Your task to perform on an android device: turn on translation in the chrome app Image 0: 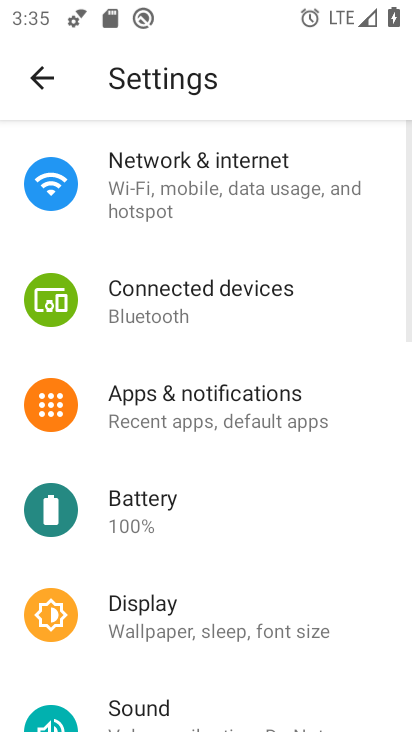
Step 0: press home button
Your task to perform on an android device: turn on translation in the chrome app Image 1: 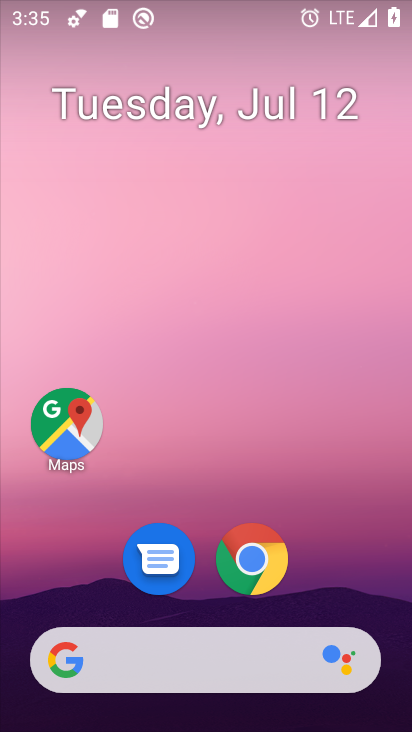
Step 1: drag from (364, 575) to (360, 152)
Your task to perform on an android device: turn on translation in the chrome app Image 2: 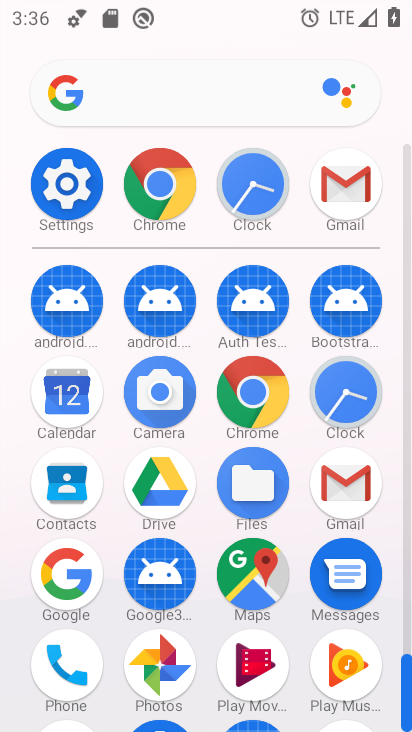
Step 2: click (266, 391)
Your task to perform on an android device: turn on translation in the chrome app Image 3: 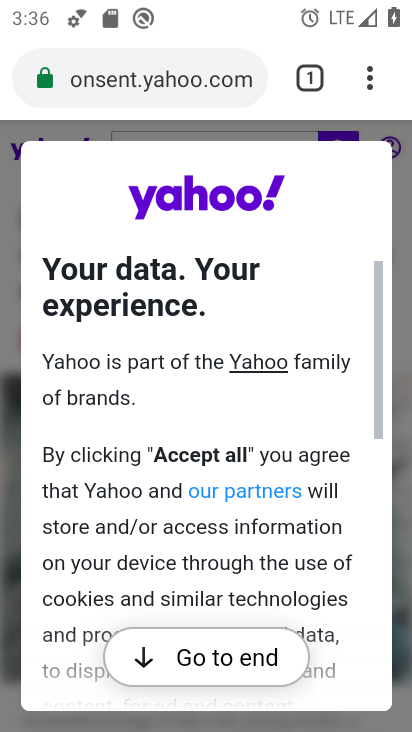
Step 3: click (368, 85)
Your task to perform on an android device: turn on translation in the chrome app Image 4: 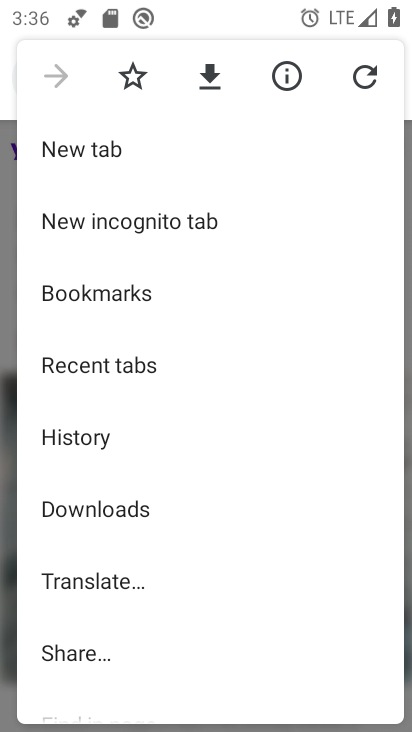
Step 4: drag from (301, 371) to (309, 301)
Your task to perform on an android device: turn on translation in the chrome app Image 5: 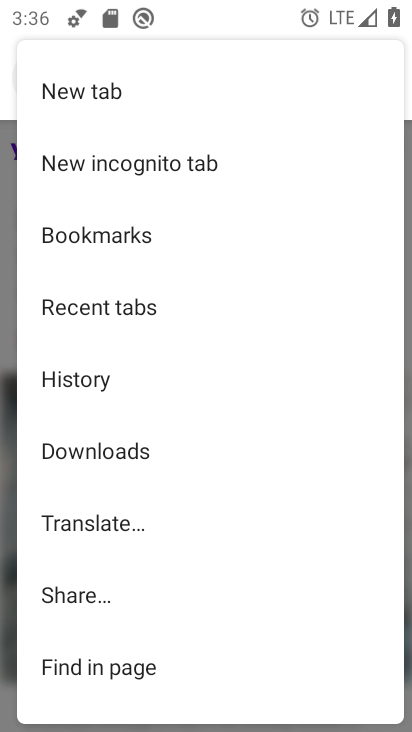
Step 5: drag from (320, 389) to (324, 320)
Your task to perform on an android device: turn on translation in the chrome app Image 6: 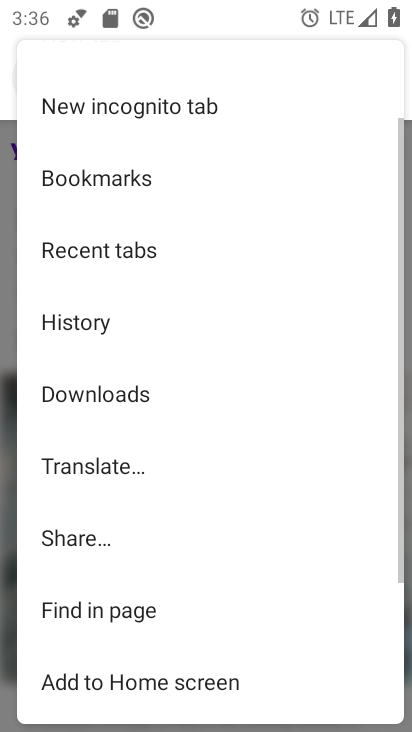
Step 6: drag from (327, 418) to (332, 321)
Your task to perform on an android device: turn on translation in the chrome app Image 7: 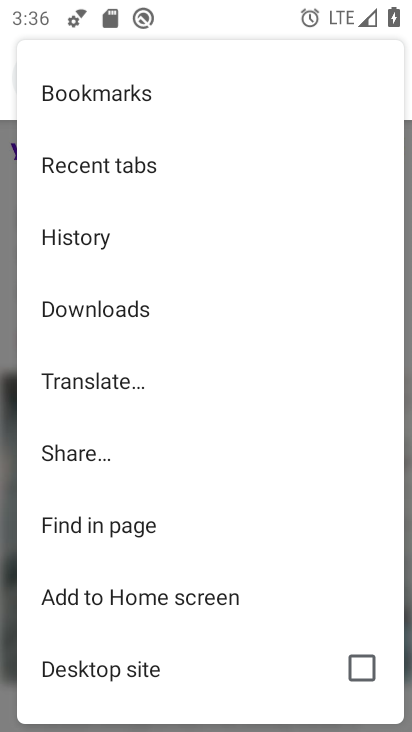
Step 7: drag from (324, 448) to (330, 372)
Your task to perform on an android device: turn on translation in the chrome app Image 8: 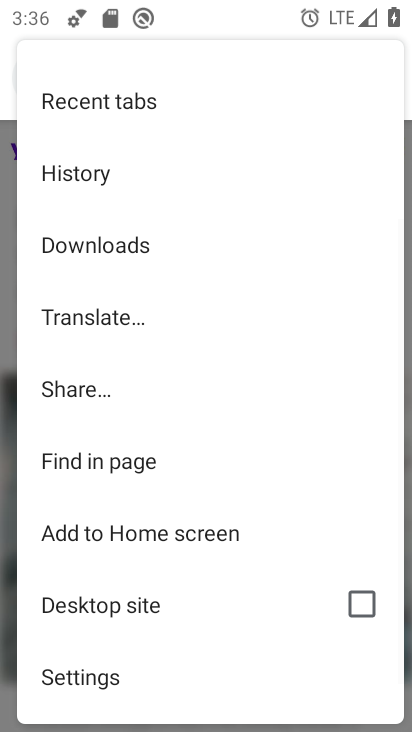
Step 8: drag from (309, 470) to (312, 387)
Your task to perform on an android device: turn on translation in the chrome app Image 9: 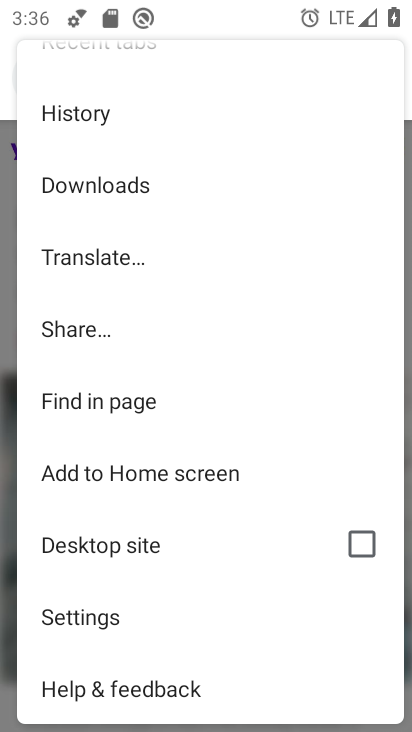
Step 9: click (224, 628)
Your task to perform on an android device: turn on translation in the chrome app Image 10: 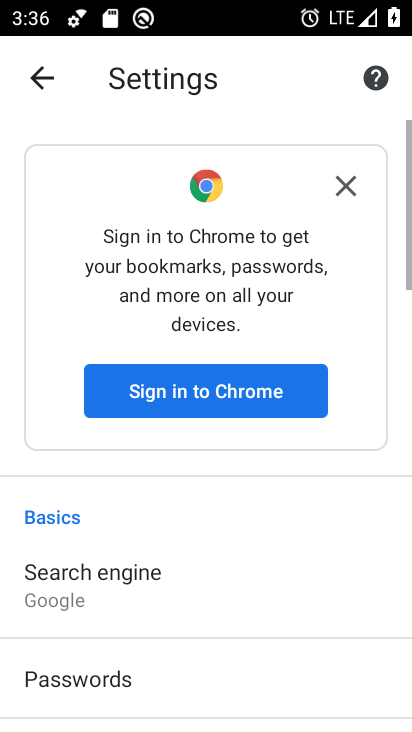
Step 10: drag from (320, 597) to (333, 513)
Your task to perform on an android device: turn on translation in the chrome app Image 11: 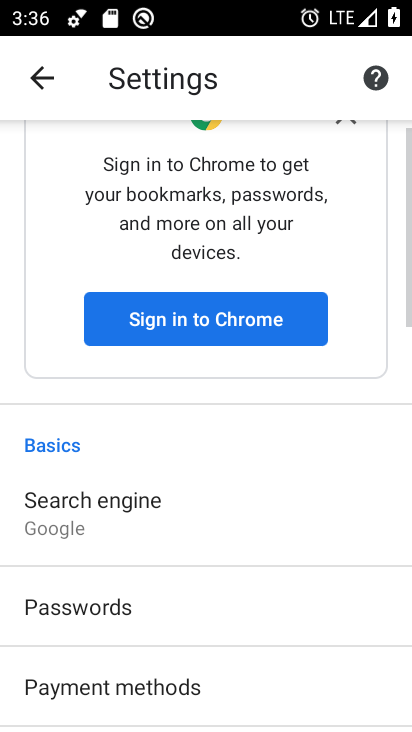
Step 11: drag from (329, 561) to (328, 479)
Your task to perform on an android device: turn on translation in the chrome app Image 12: 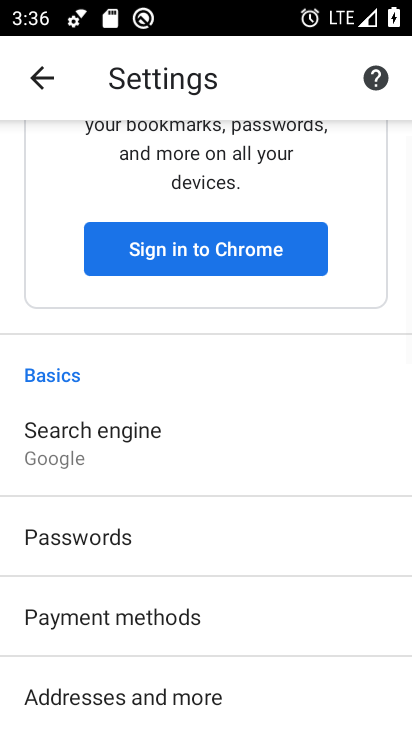
Step 12: drag from (325, 546) to (326, 483)
Your task to perform on an android device: turn on translation in the chrome app Image 13: 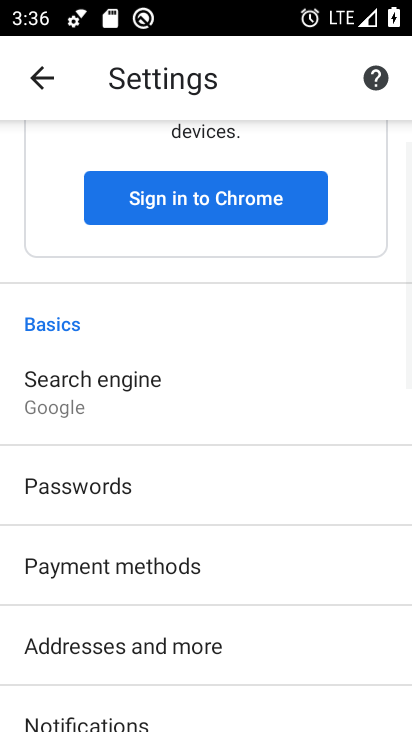
Step 13: drag from (326, 550) to (329, 467)
Your task to perform on an android device: turn on translation in the chrome app Image 14: 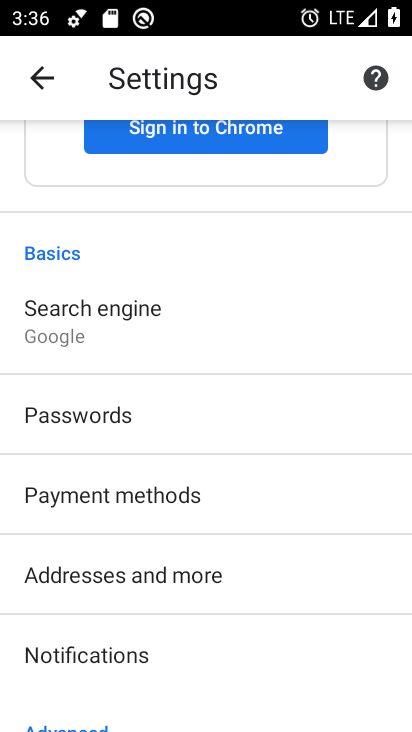
Step 14: drag from (324, 543) to (325, 469)
Your task to perform on an android device: turn on translation in the chrome app Image 15: 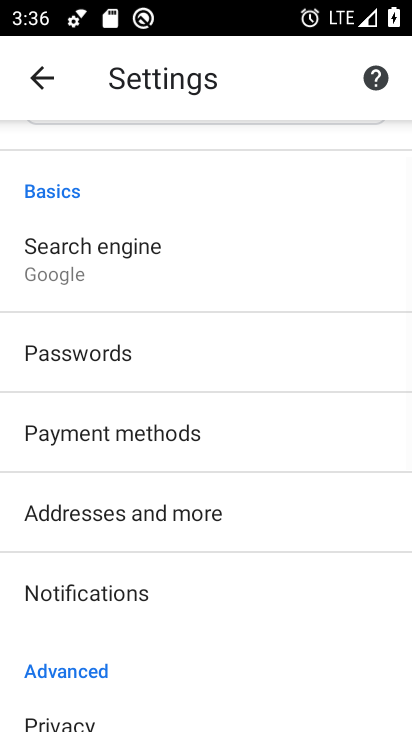
Step 15: drag from (327, 534) to (327, 457)
Your task to perform on an android device: turn on translation in the chrome app Image 16: 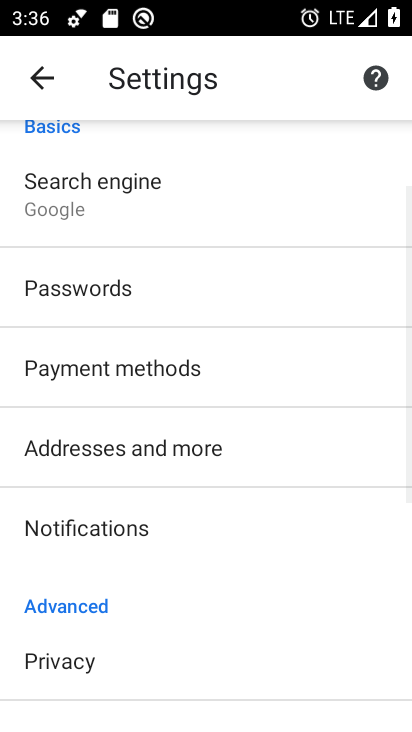
Step 16: drag from (329, 538) to (339, 452)
Your task to perform on an android device: turn on translation in the chrome app Image 17: 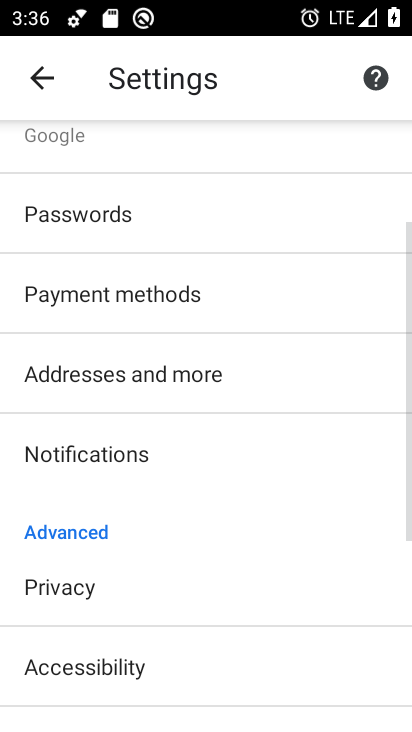
Step 17: drag from (339, 515) to (341, 436)
Your task to perform on an android device: turn on translation in the chrome app Image 18: 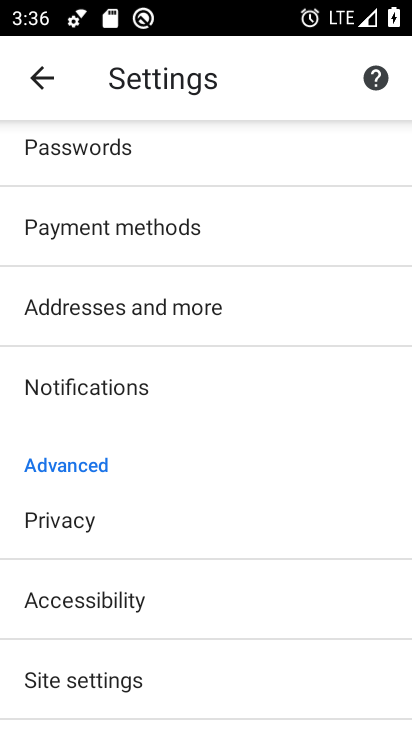
Step 18: drag from (328, 549) to (327, 456)
Your task to perform on an android device: turn on translation in the chrome app Image 19: 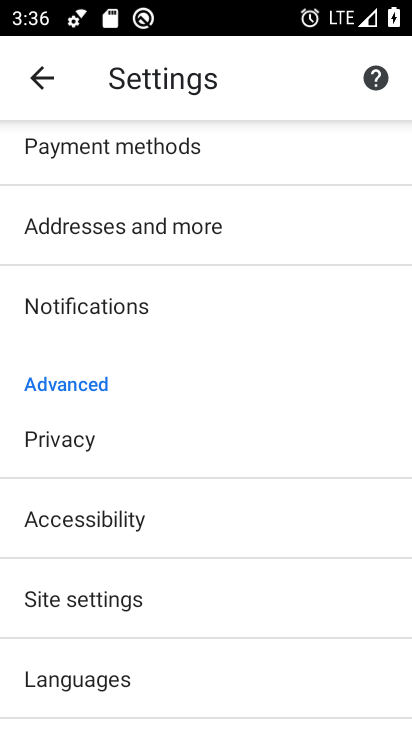
Step 19: drag from (326, 575) to (337, 439)
Your task to perform on an android device: turn on translation in the chrome app Image 20: 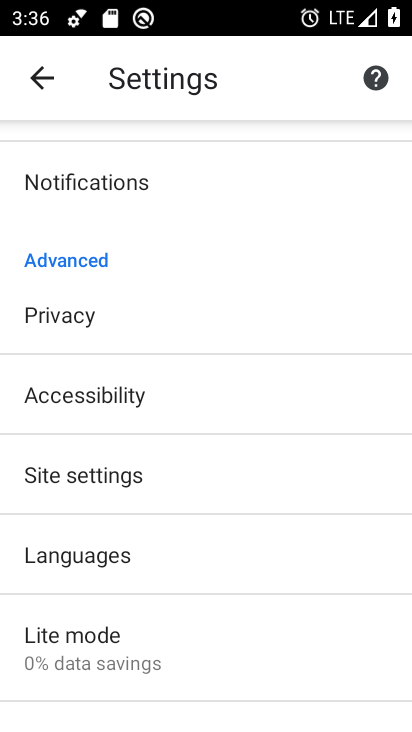
Step 20: click (315, 547)
Your task to perform on an android device: turn on translation in the chrome app Image 21: 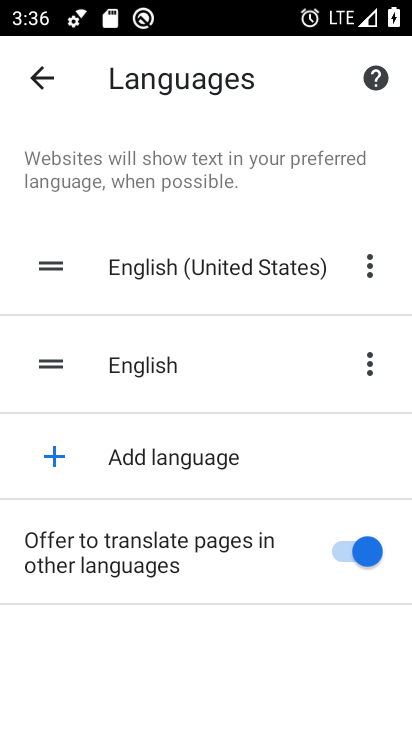
Step 21: task complete